Your task to perform on an android device: Open ESPN.com Image 0: 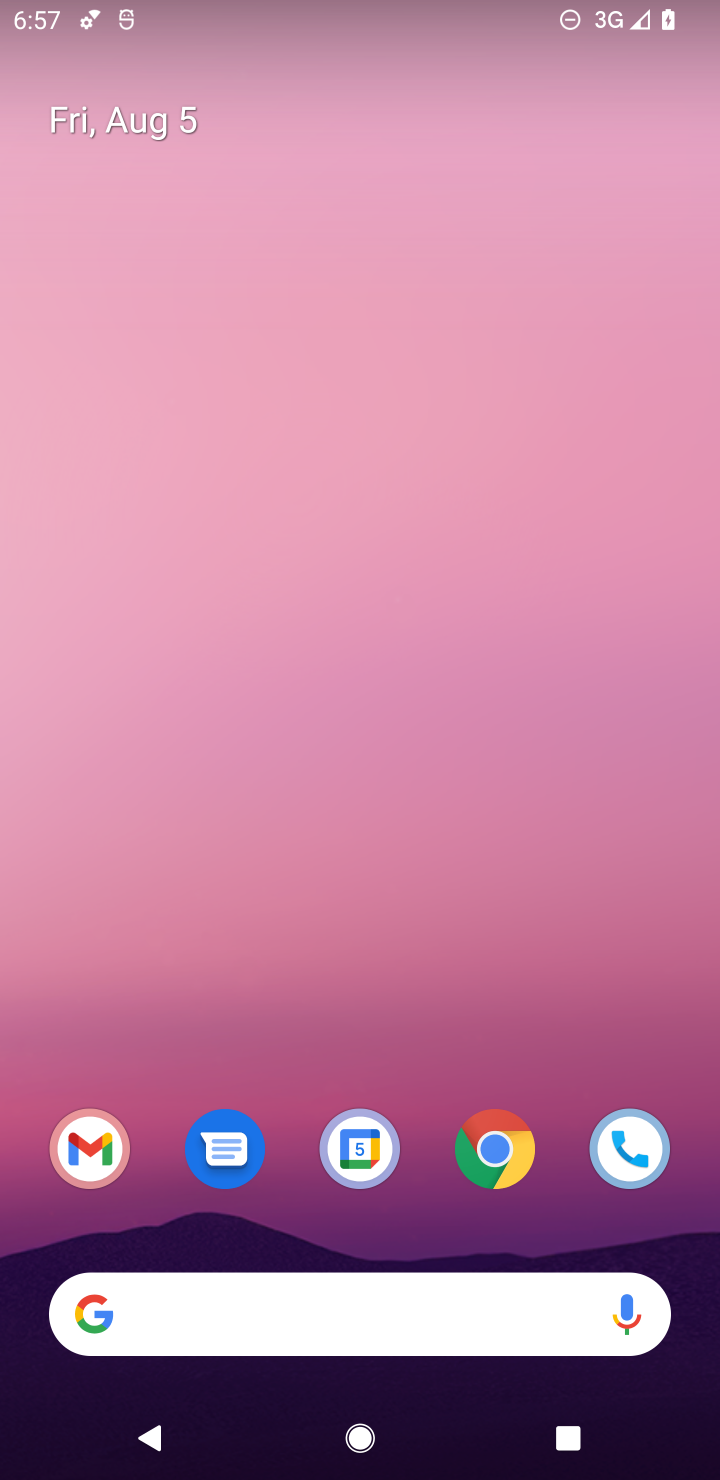
Step 0: click (488, 1141)
Your task to perform on an android device: Open ESPN.com Image 1: 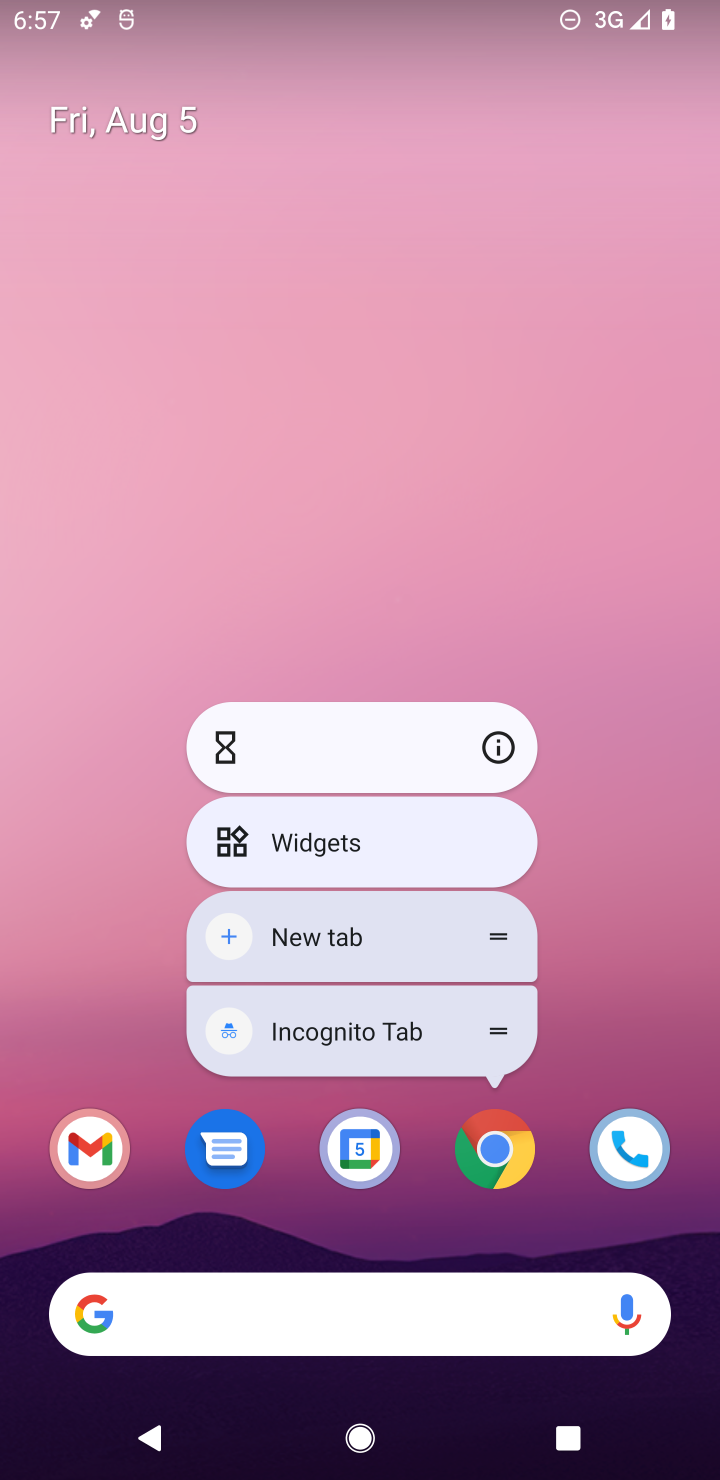
Step 1: click (663, 907)
Your task to perform on an android device: Open ESPN.com Image 2: 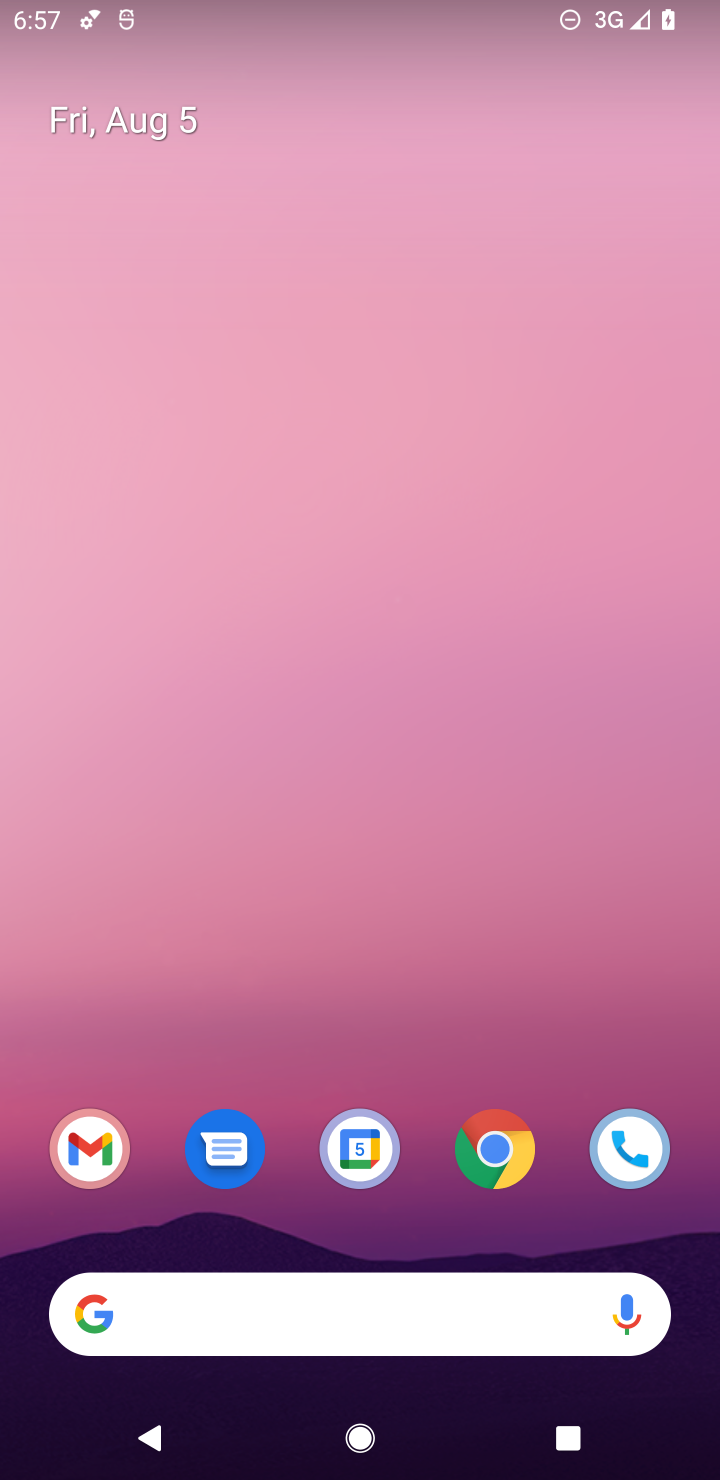
Step 2: click (473, 1159)
Your task to perform on an android device: Open ESPN.com Image 3: 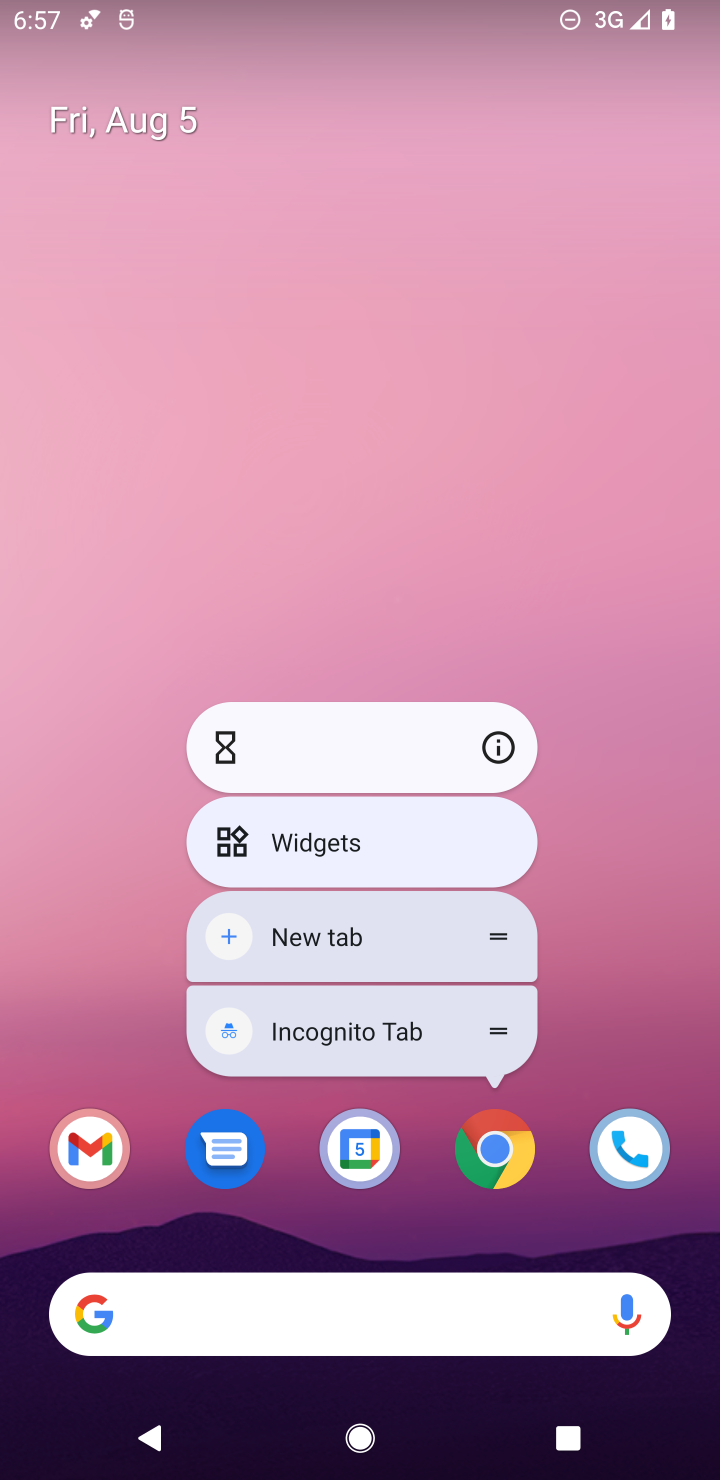
Step 3: click (606, 934)
Your task to perform on an android device: Open ESPN.com Image 4: 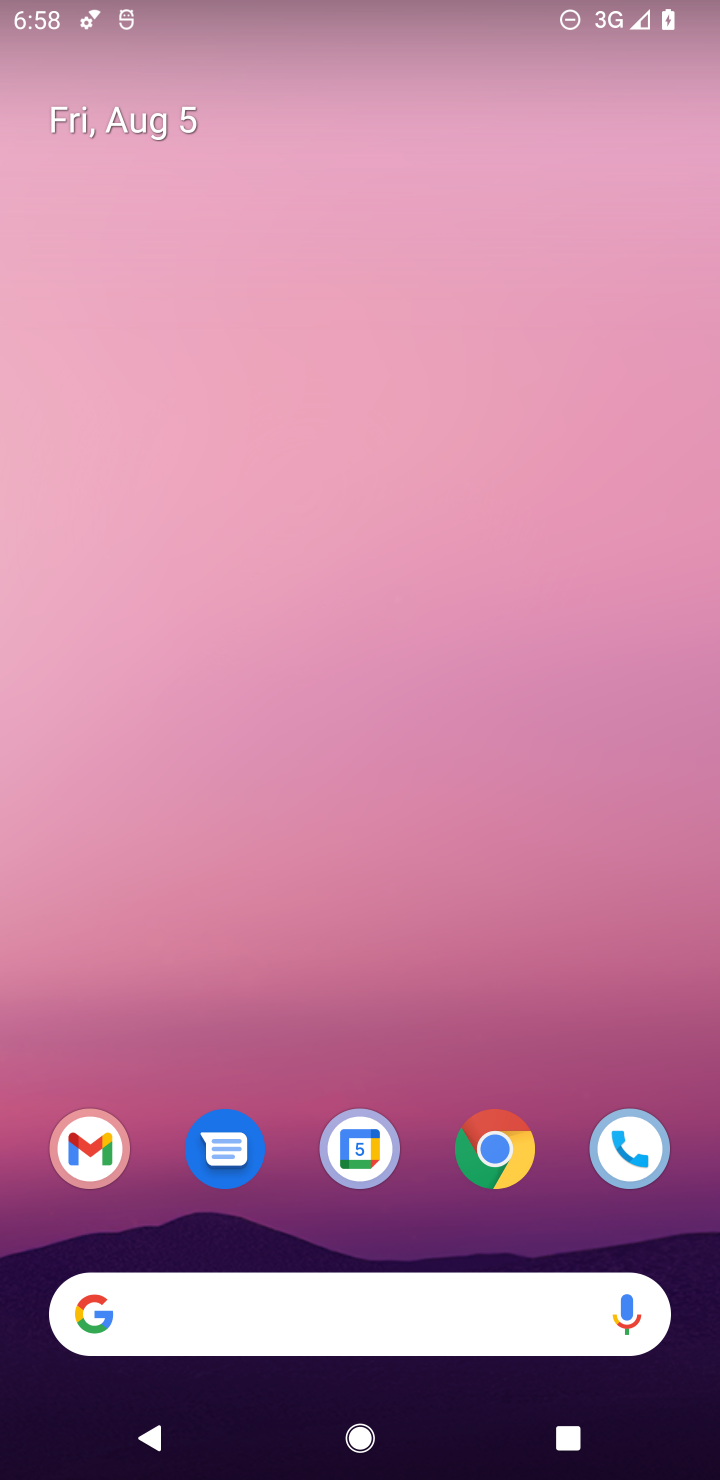
Step 4: click (499, 1152)
Your task to perform on an android device: Open ESPN.com Image 5: 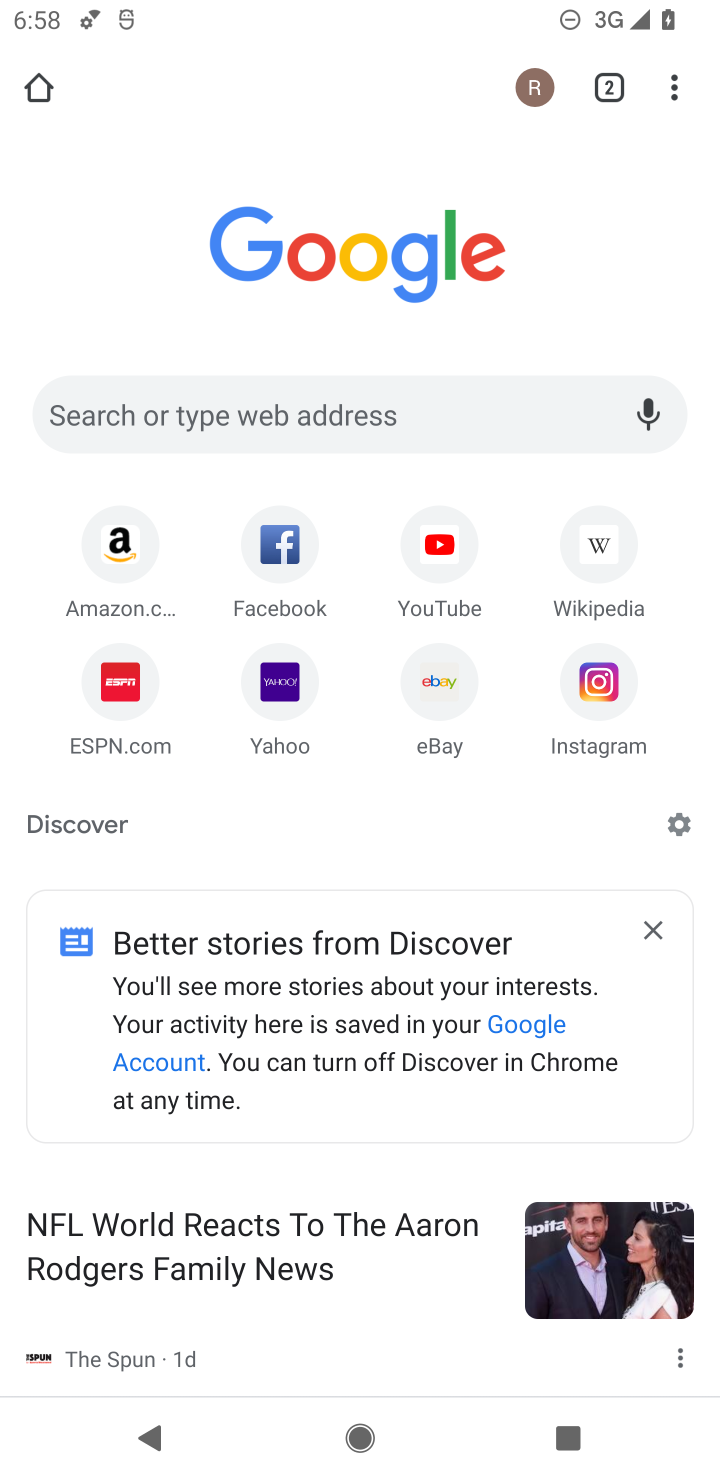
Step 5: click (109, 691)
Your task to perform on an android device: Open ESPN.com Image 6: 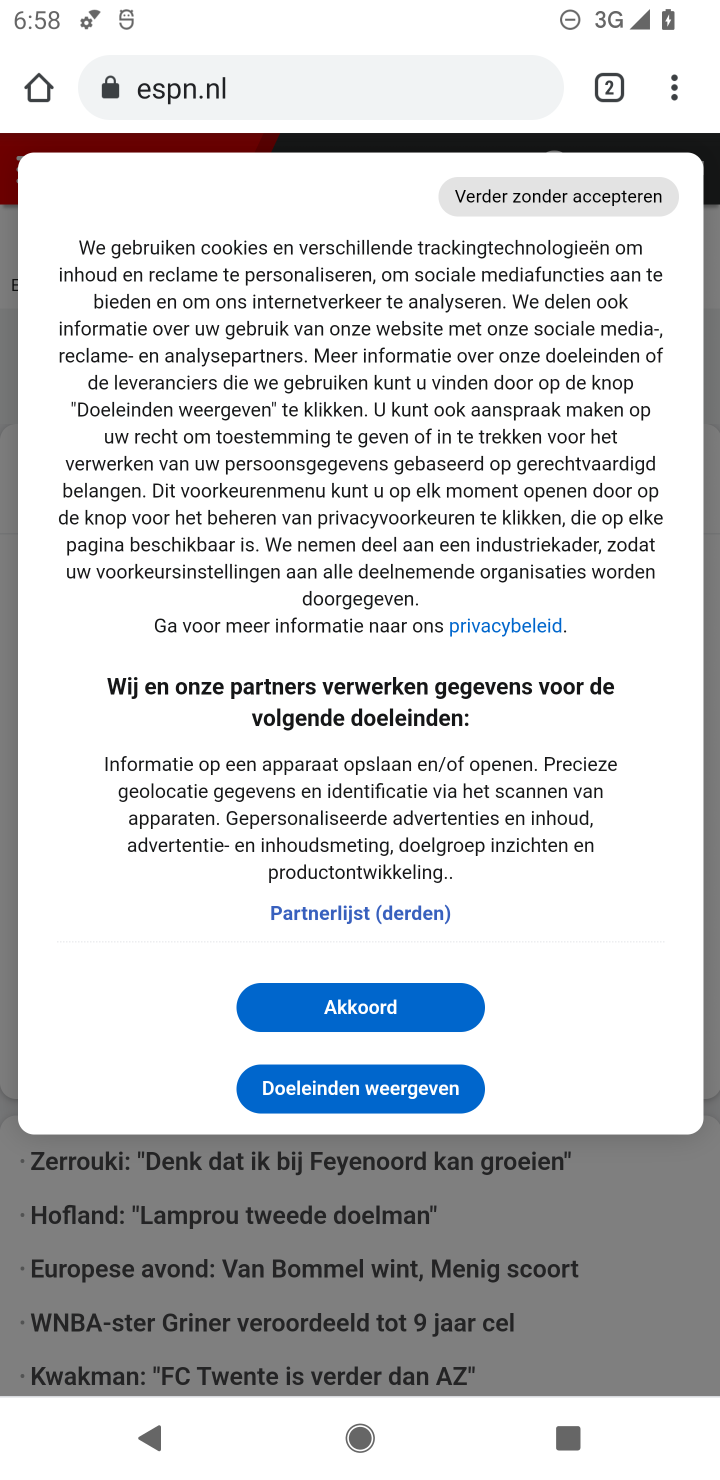
Step 6: click (368, 1011)
Your task to perform on an android device: Open ESPN.com Image 7: 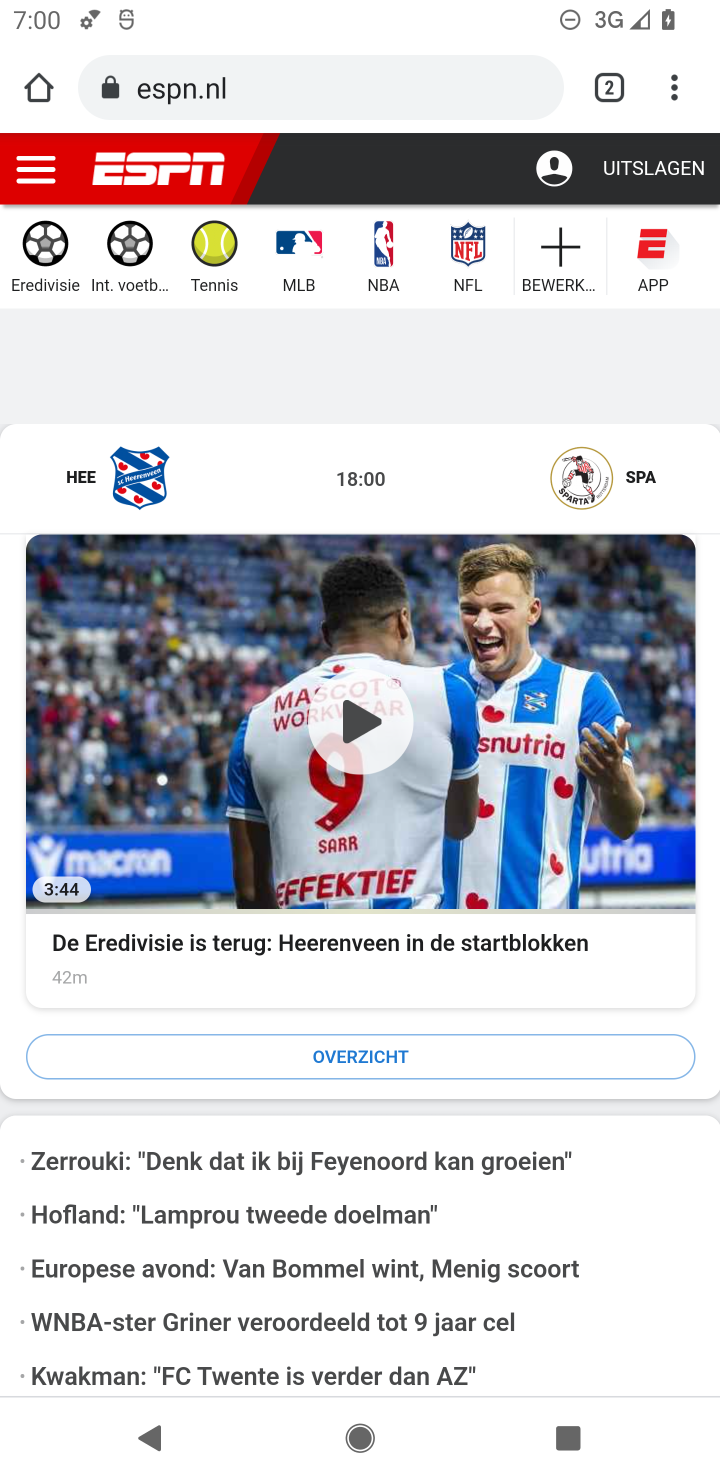
Step 7: task complete